Your task to perform on an android device: Go to sound settings Image 0: 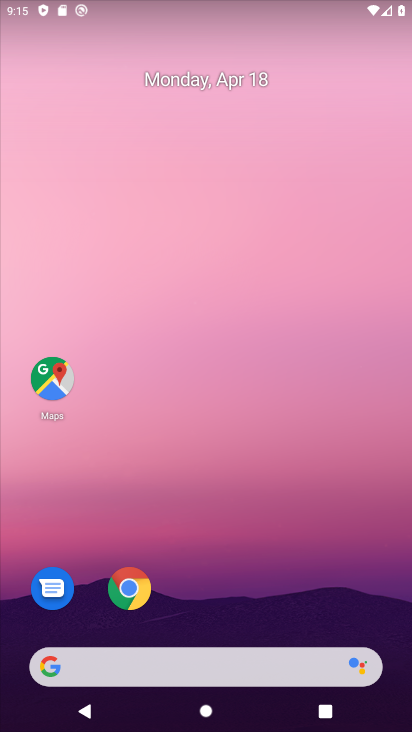
Step 0: drag from (303, 597) to (297, 32)
Your task to perform on an android device: Go to sound settings Image 1: 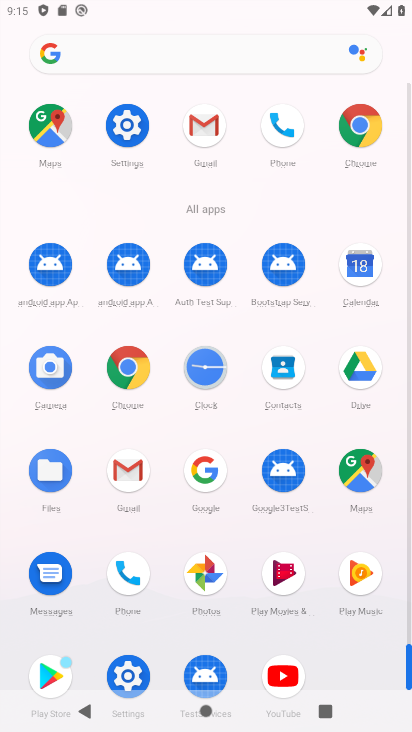
Step 1: click (136, 670)
Your task to perform on an android device: Go to sound settings Image 2: 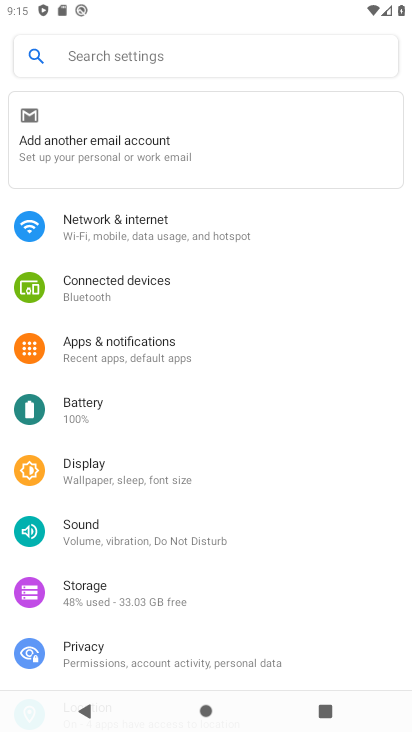
Step 2: drag from (267, 533) to (324, 157)
Your task to perform on an android device: Go to sound settings Image 3: 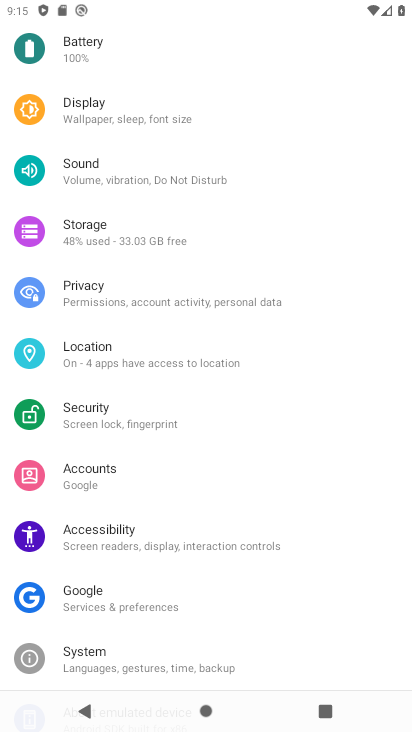
Step 3: click (83, 168)
Your task to perform on an android device: Go to sound settings Image 4: 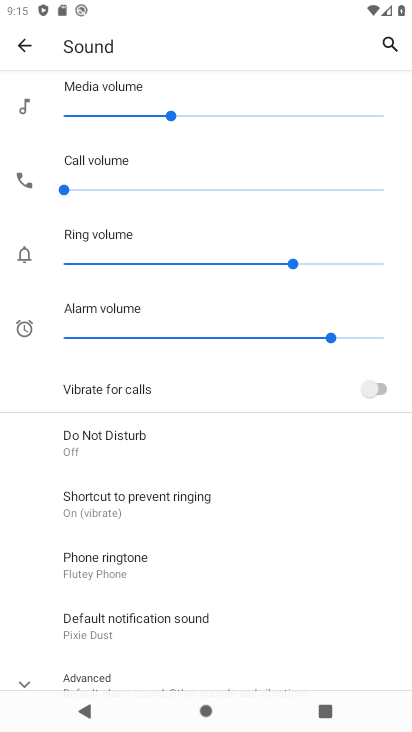
Step 4: task complete